Your task to perform on an android device: turn vacation reply on in the gmail app Image 0: 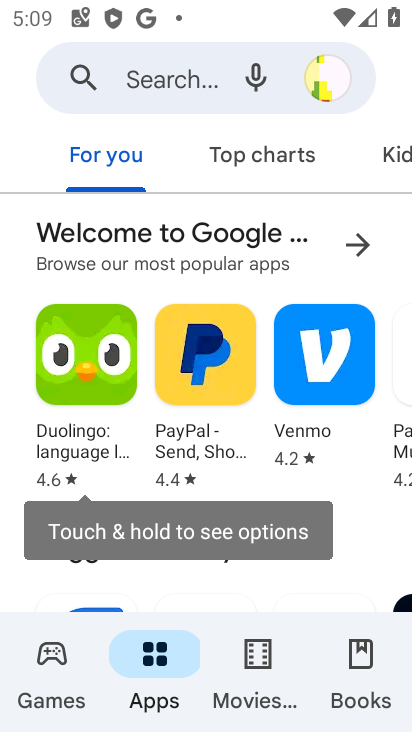
Step 0: press back button
Your task to perform on an android device: turn vacation reply on in the gmail app Image 1: 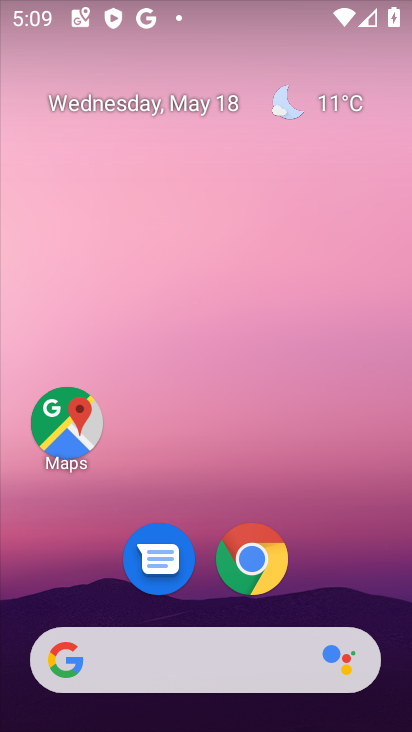
Step 1: drag from (183, 590) to (231, 138)
Your task to perform on an android device: turn vacation reply on in the gmail app Image 2: 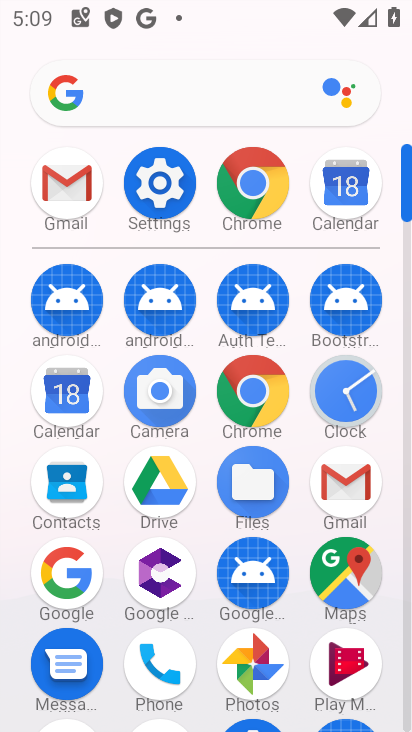
Step 2: click (70, 172)
Your task to perform on an android device: turn vacation reply on in the gmail app Image 3: 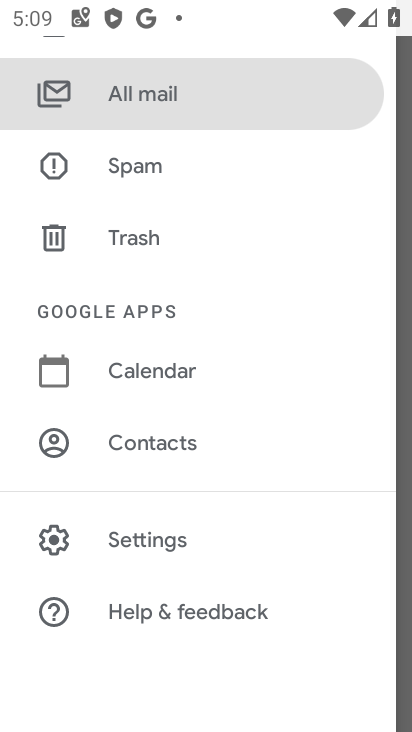
Step 3: click (178, 548)
Your task to perform on an android device: turn vacation reply on in the gmail app Image 4: 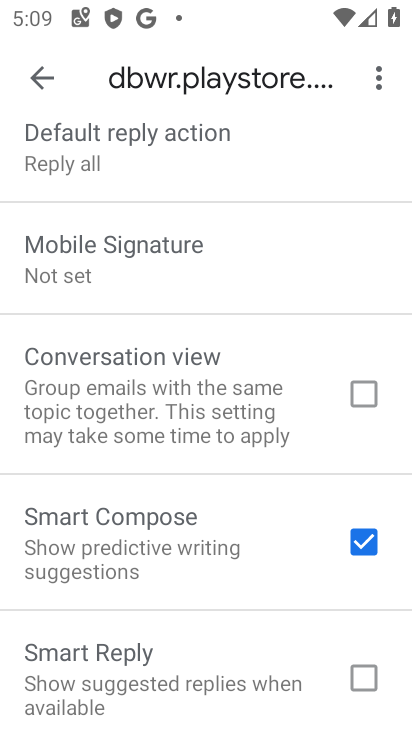
Step 4: drag from (143, 662) to (227, 25)
Your task to perform on an android device: turn vacation reply on in the gmail app Image 5: 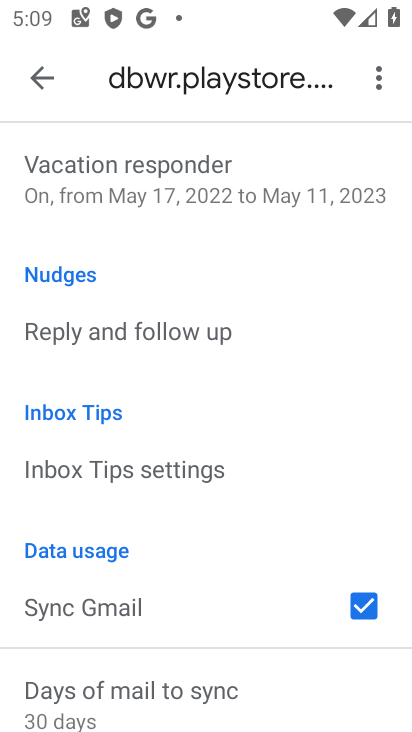
Step 5: drag from (214, 620) to (293, 40)
Your task to perform on an android device: turn vacation reply on in the gmail app Image 6: 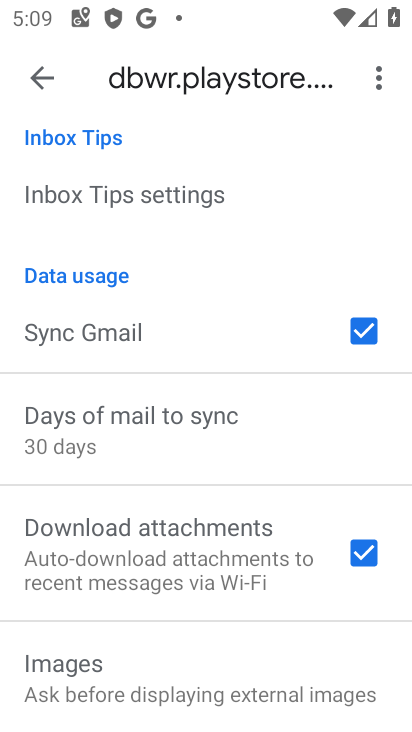
Step 6: drag from (163, 627) to (218, 150)
Your task to perform on an android device: turn vacation reply on in the gmail app Image 7: 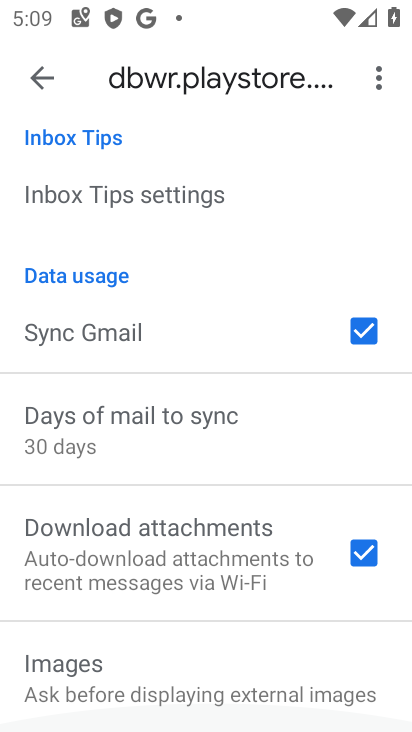
Step 7: drag from (243, 273) to (184, 730)
Your task to perform on an android device: turn vacation reply on in the gmail app Image 8: 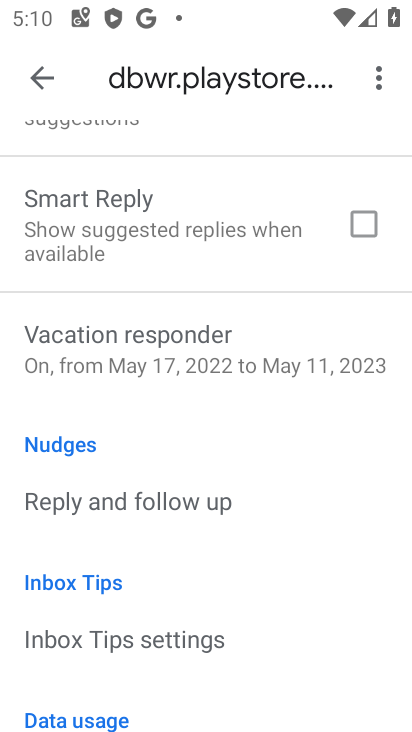
Step 8: click (243, 358)
Your task to perform on an android device: turn vacation reply on in the gmail app Image 9: 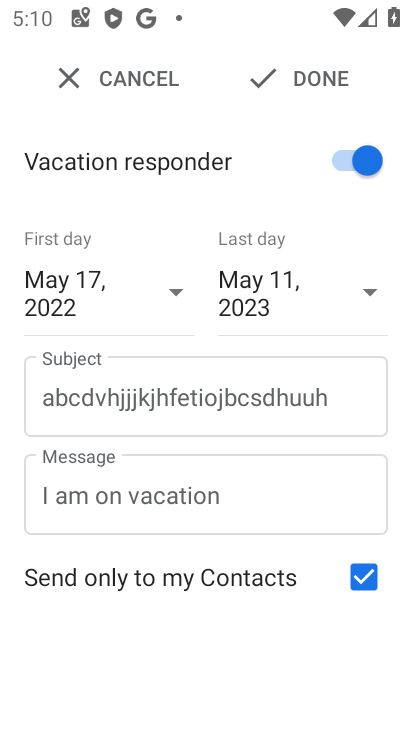
Step 9: task complete